Your task to perform on an android device: turn on airplane mode Image 0: 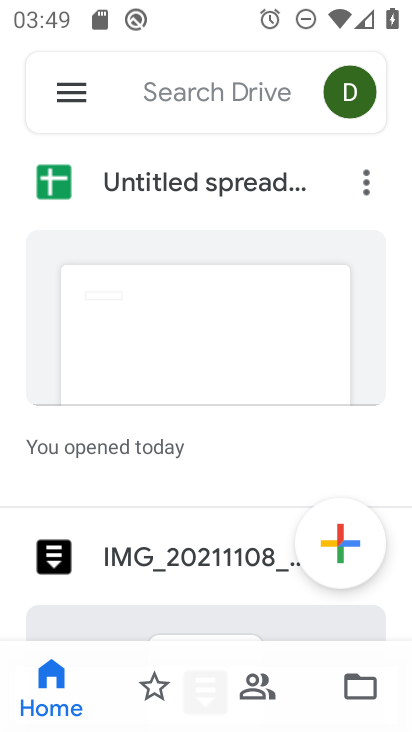
Step 0: press home button
Your task to perform on an android device: turn on airplane mode Image 1: 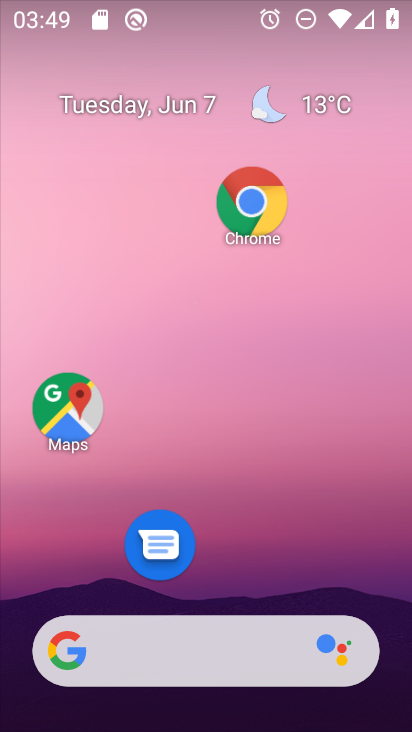
Step 1: drag from (234, 595) to (269, 314)
Your task to perform on an android device: turn on airplane mode Image 2: 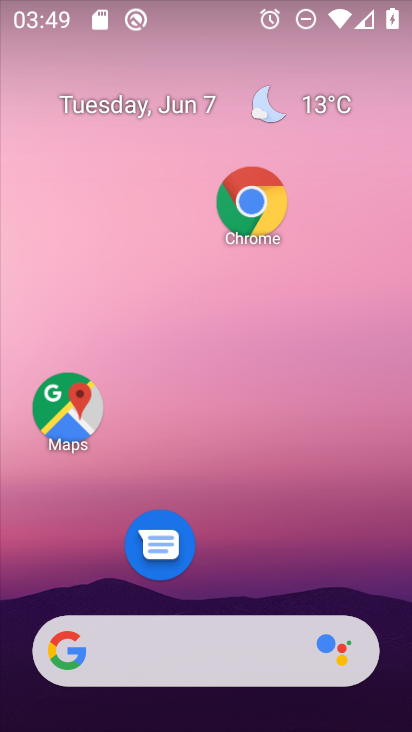
Step 2: drag from (193, 634) to (270, 306)
Your task to perform on an android device: turn on airplane mode Image 3: 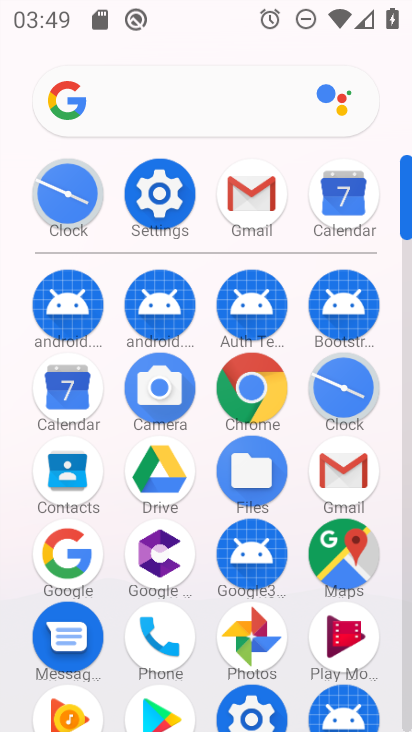
Step 3: click (165, 198)
Your task to perform on an android device: turn on airplane mode Image 4: 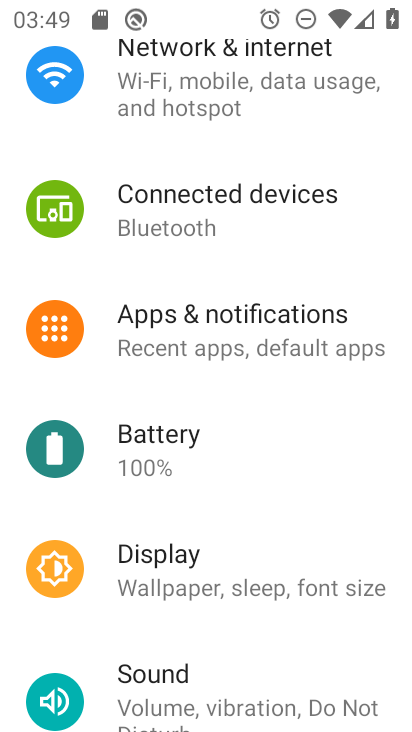
Step 4: click (178, 85)
Your task to perform on an android device: turn on airplane mode Image 5: 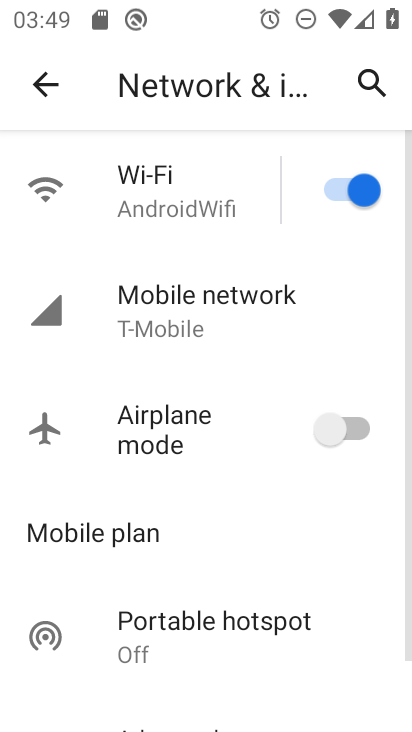
Step 5: click (341, 395)
Your task to perform on an android device: turn on airplane mode Image 6: 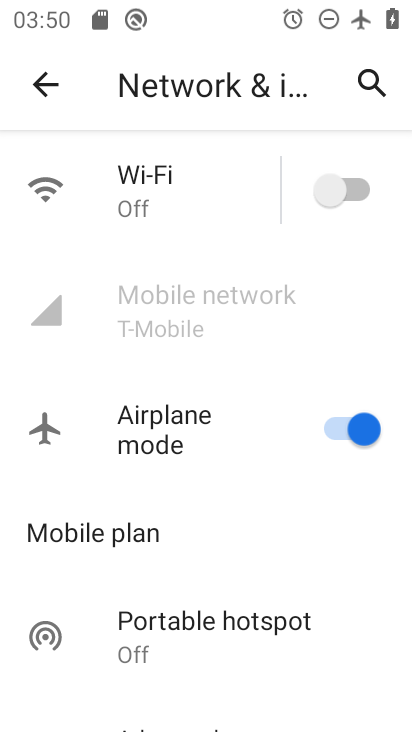
Step 6: task complete